Your task to perform on an android device: What's on my calendar tomorrow? Image 0: 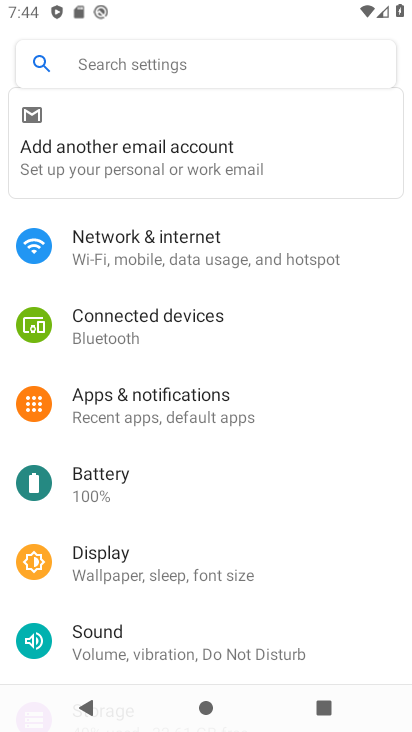
Step 0: press home button
Your task to perform on an android device: What's on my calendar tomorrow? Image 1: 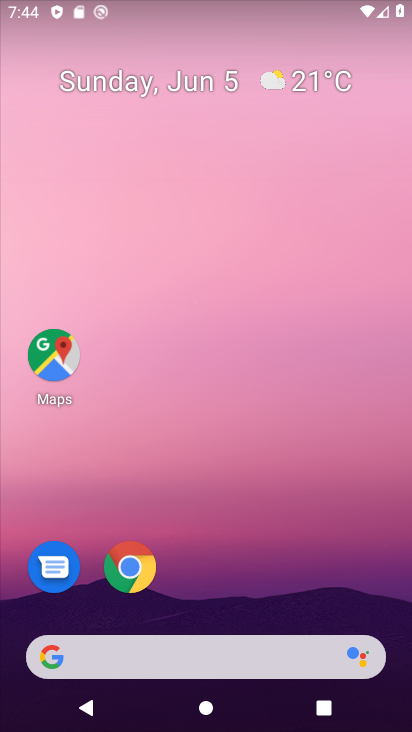
Step 1: drag from (182, 631) to (227, 204)
Your task to perform on an android device: What's on my calendar tomorrow? Image 2: 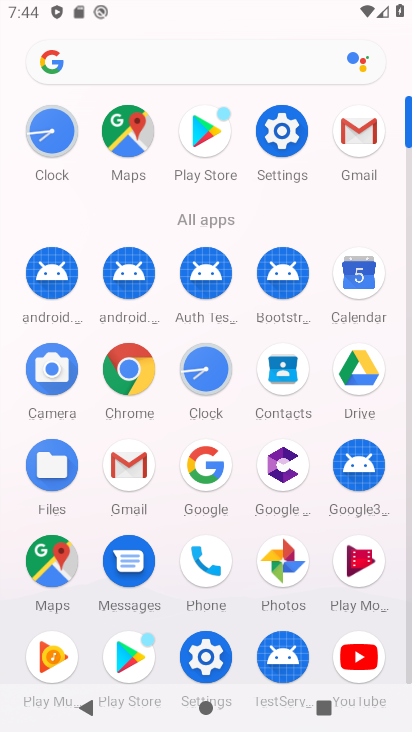
Step 2: click (372, 274)
Your task to perform on an android device: What's on my calendar tomorrow? Image 3: 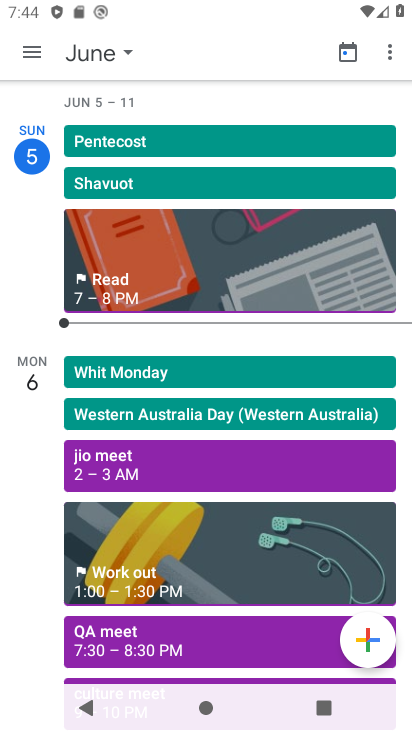
Step 3: click (121, 55)
Your task to perform on an android device: What's on my calendar tomorrow? Image 4: 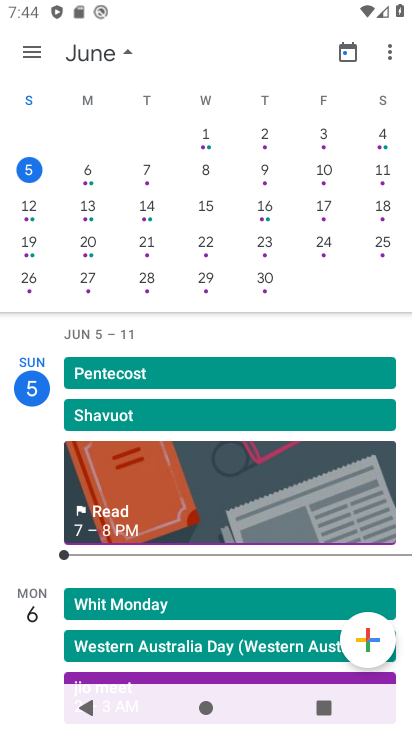
Step 4: drag from (390, 251) to (2, 224)
Your task to perform on an android device: What's on my calendar tomorrow? Image 5: 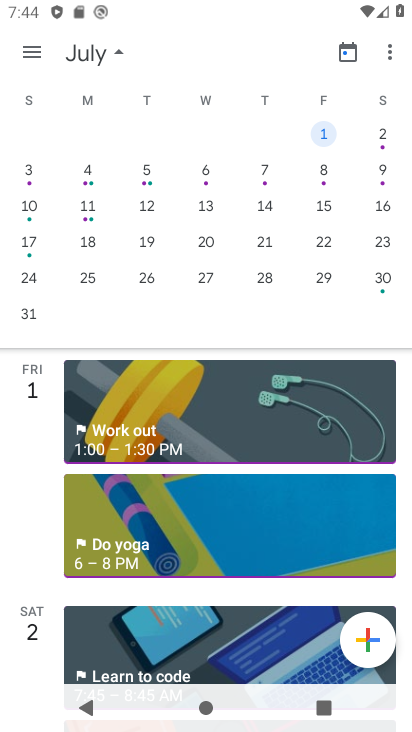
Step 5: drag from (46, 224) to (394, 234)
Your task to perform on an android device: What's on my calendar tomorrow? Image 6: 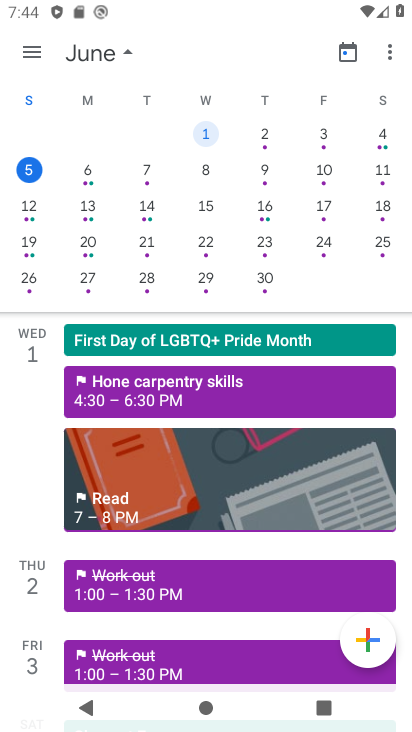
Step 6: click (87, 176)
Your task to perform on an android device: What's on my calendar tomorrow? Image 7: 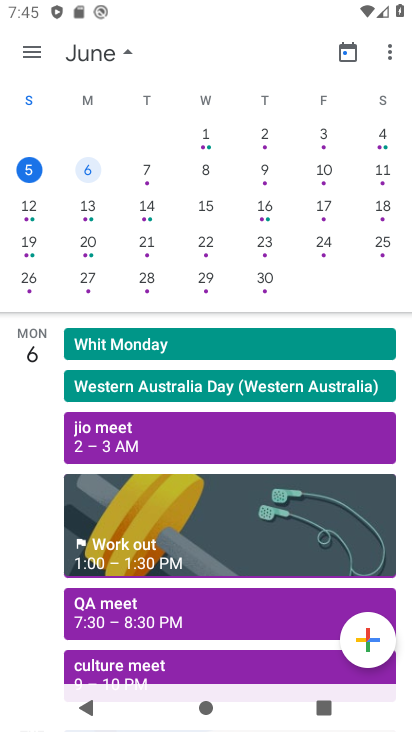
Step 7: task complete